Your task to perform on an android device: turn off location Image 0: 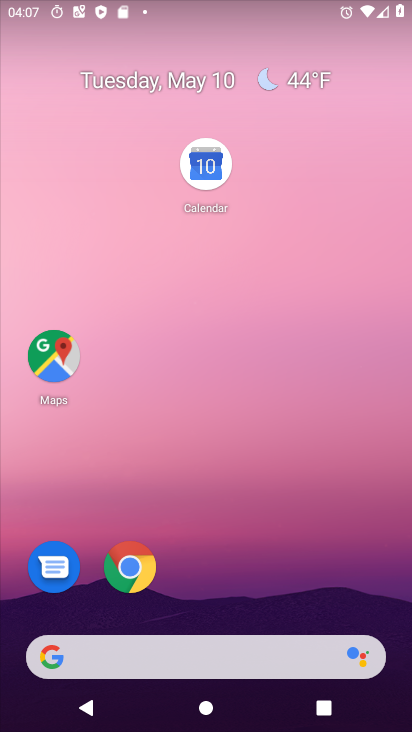
Step 0: drag from (260, 552) to (282, 9)
Your task to perform on an android device: turn off location Image 1: 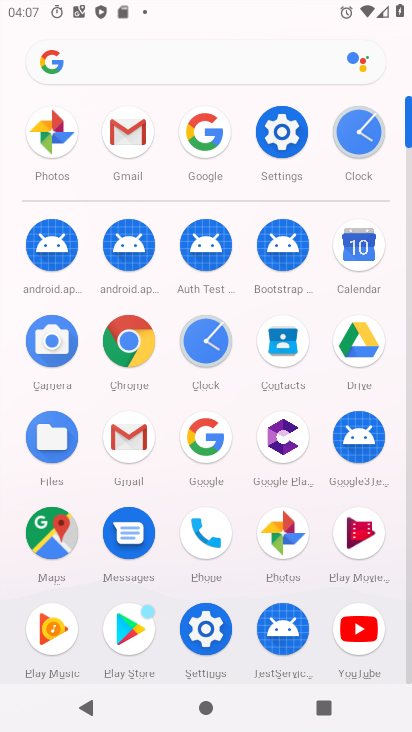
Step 1: click (286, 134)
Your task to perform on an android device: turn off location Image 2: 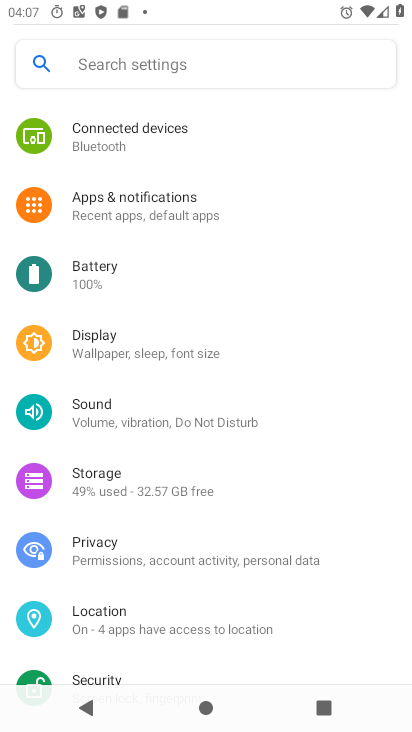
Step 2: drag from (109, 508) to (160, 293)
Your task to perform on an android device: turn off location Image 3: 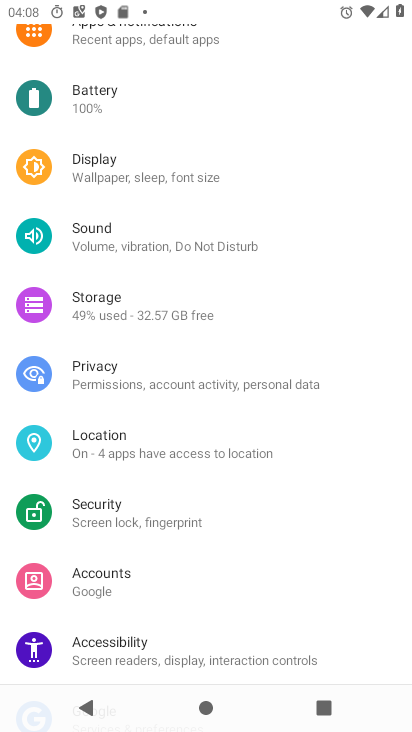
Step 3: click (89, 433)
Your task to perform on an android device: turn off location Image 4: 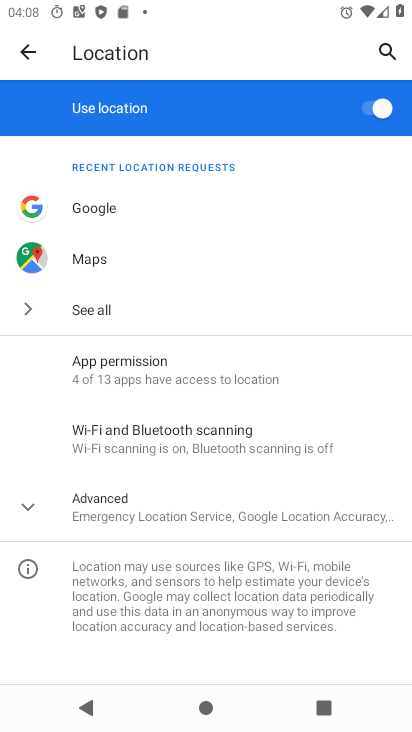
Step 4: click (161, 502)
Your task to perform on an android device: turn off location Image 5: 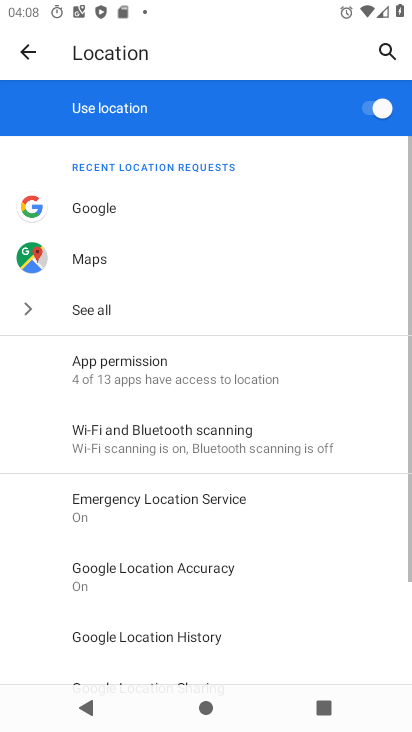
Step 5: drag from (248, 463) to (233, 121)
Your task to perform on an android device: turn off location Image 6: 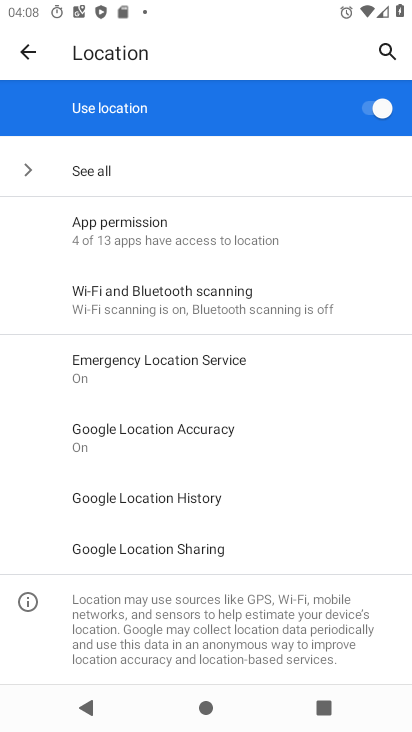
Step 6: click (376, 116)
Your task to perform on an android device: turn off location Image 7: 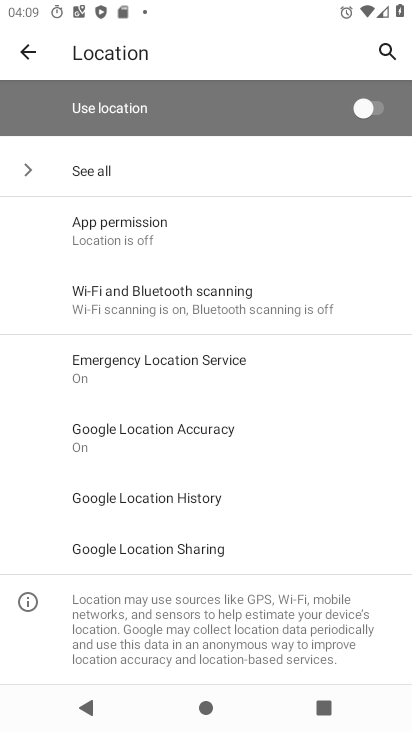
Step 7: task complete